Your task to perform on an android device: Show me popular games on the Play Store Image 0: 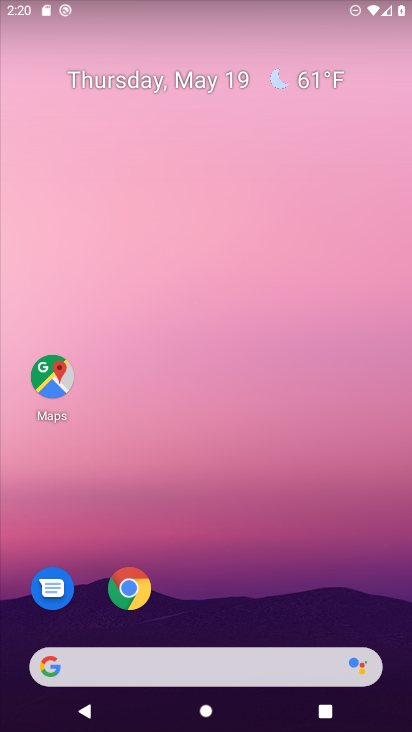
Step 0: drag from (317, 623) to (353, 19)
Your task to perform on an android device: Show me popular games on the Play Store Image 1: 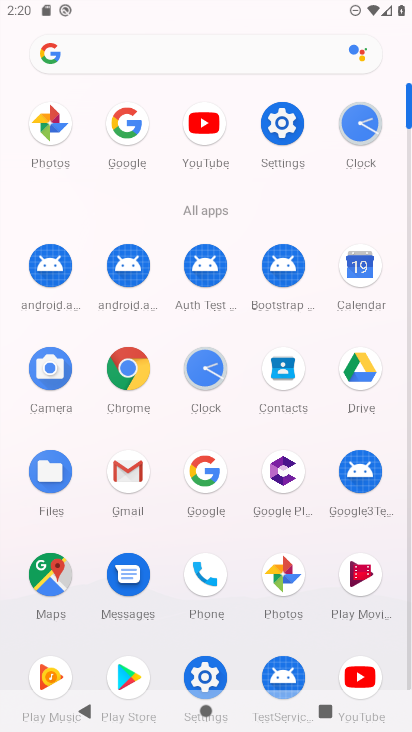
Step 1: click (125, 669)
Your task to perform on an android device: Show me popular games on the Play Store Image 2: 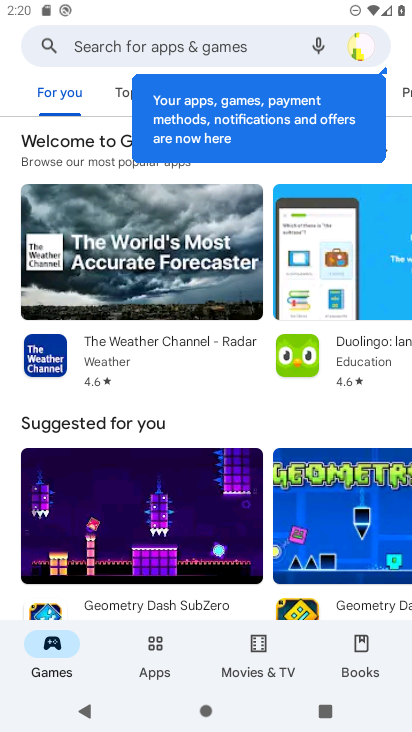
Step 2: drag from (148, 533) to (113, 277)
Your task to perform on an android device: Show me popular games on the Play Store Image 3: 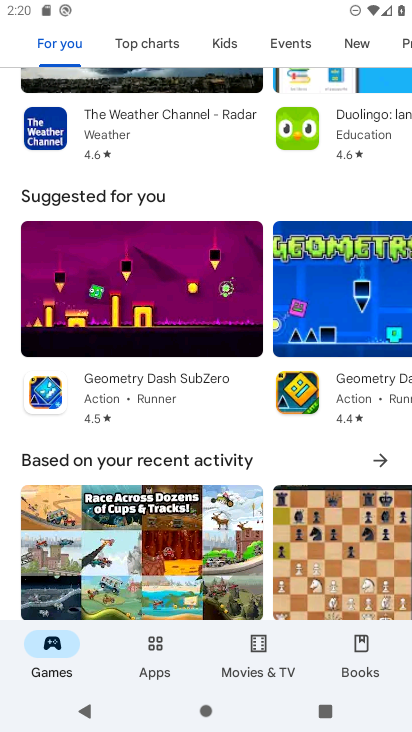
Step 3: drag from (180, 511) to (135, 176)
Your task to perform on an android device: Show me popular games on the Play Store Image 4: 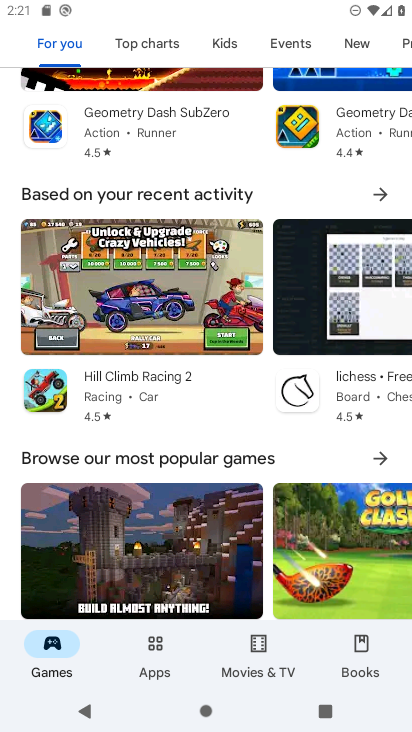
Step 4: click (145, 464)
Your task to perform on an android device: Show me popular games on the Play Store Image 5: 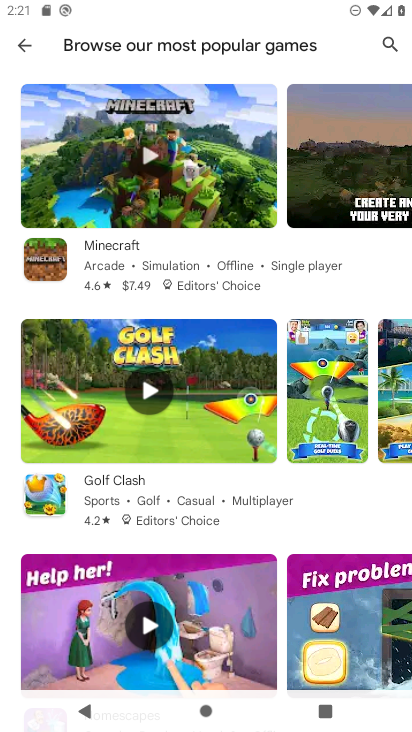
Step 5: task complete